Your task to perform on an android device: Open Google Maps Image 0: 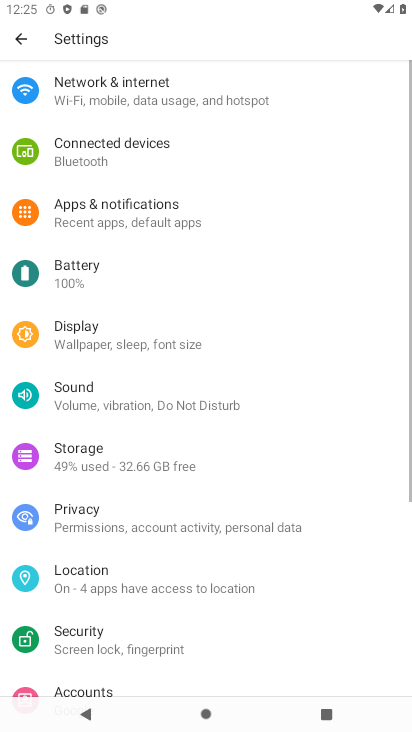
Step 0: press home button
Your task to perform on an android device: Open Google Maps Image 1: 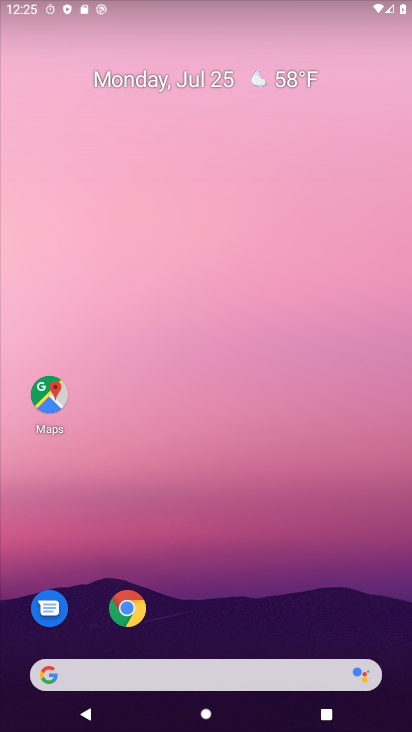
Step 1: drag from (200, 456) to (198, 66)
Your task to perform on an android device: Open Google Maps Image 2: 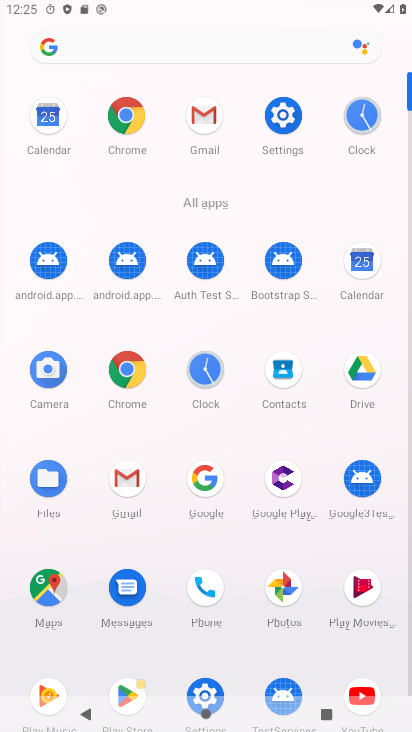
Step 2: click (35, 588)
Your task to perform on an android device: Open Google Maps Image 3: 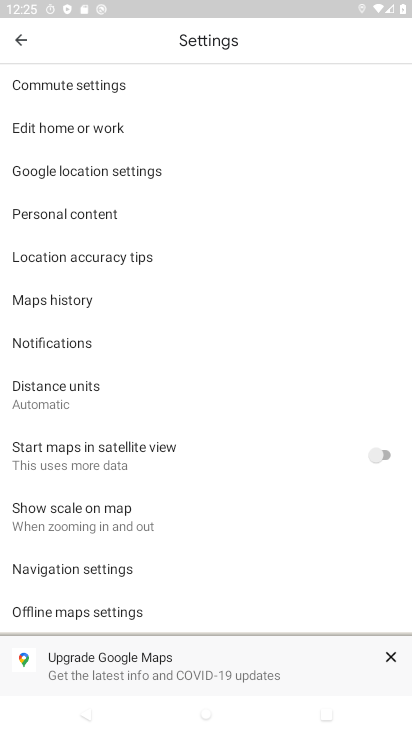
Step 3: click (19, 38)
Your task to perform on an android device: Open Google Maps Image 4: 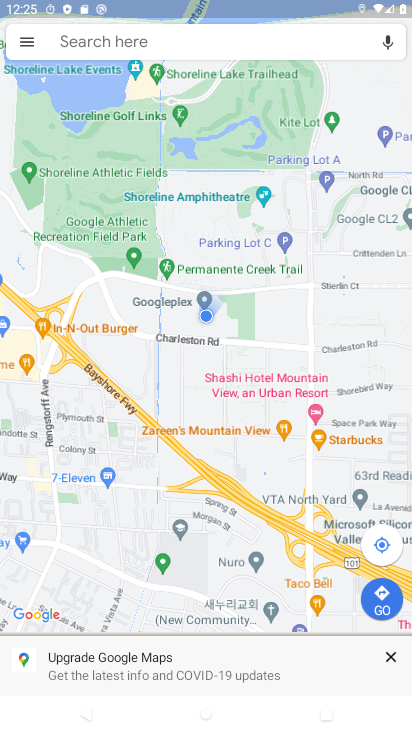
Step 4: task complete